Your task to perform on an android device: Open the Play Movies app and select the watchlist tab. Image 0: 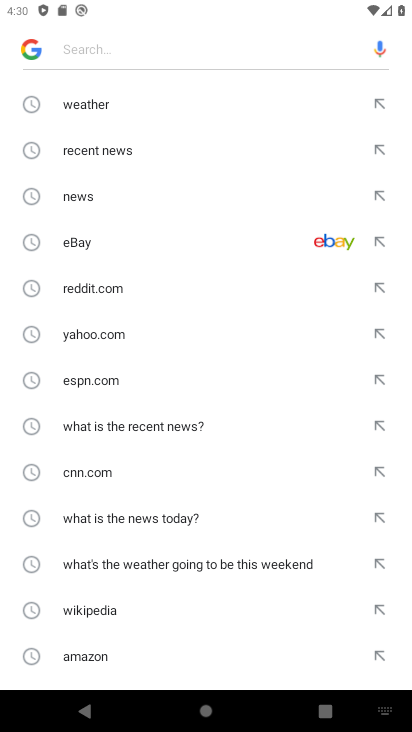
Step 0: press home button
Your task to perform on an android device: Open the Play Movies app and select the watchlist tab. Image 1: 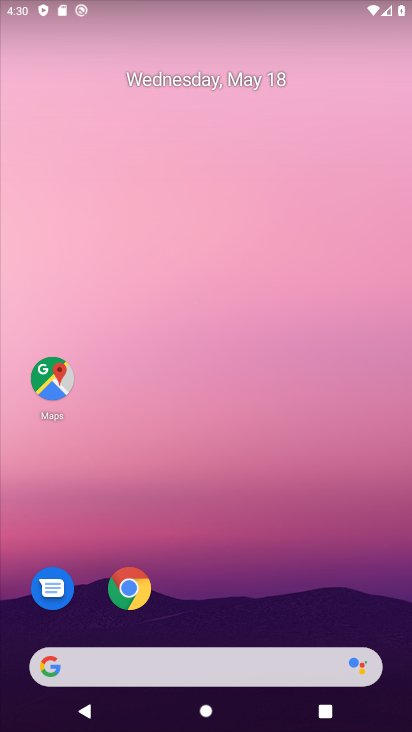
Step 1: drag from (278, 527) to (279, 134)
Your task to perform on an android device: Open the Play Movies app and select the watchlist tab. Image 2: 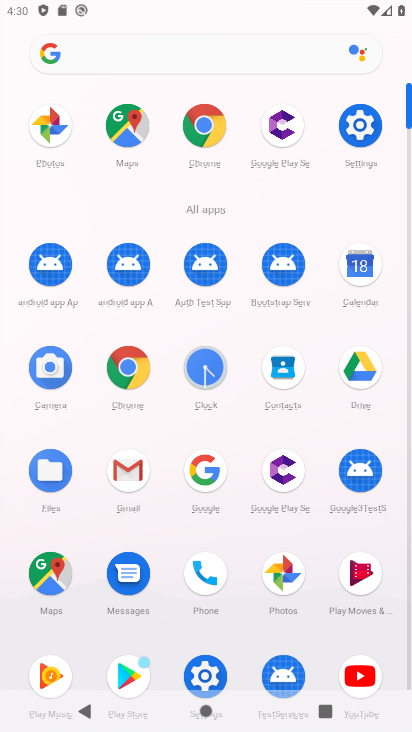
Step 2: drag from (267, 137) to (281, 58)
Your task to perform on an android device: Open the Play Movies app and select the watchlist tab. Image 3: 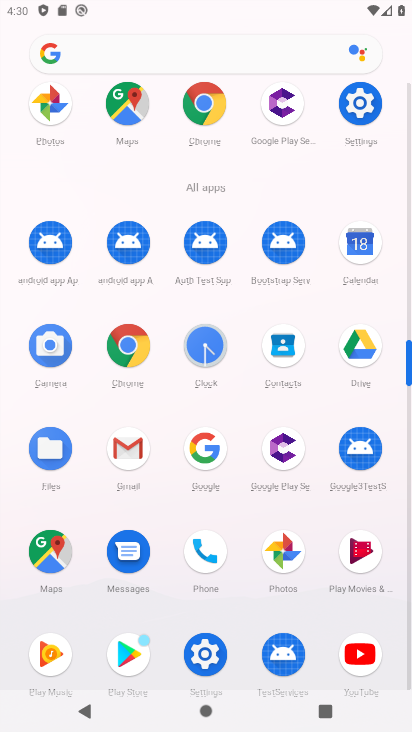
Step 3: click (361, 547)
Your task to perform on an android device: Open the Play Movies app and select the watchlist tab. Image 4: 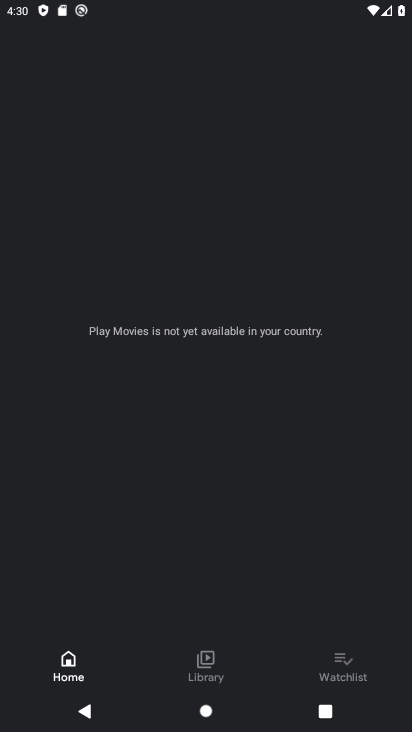
Step 4: click (339, 667)
Your task to perform on an android device: Open the Play Movies app and select the watchlist tab. Image 5: 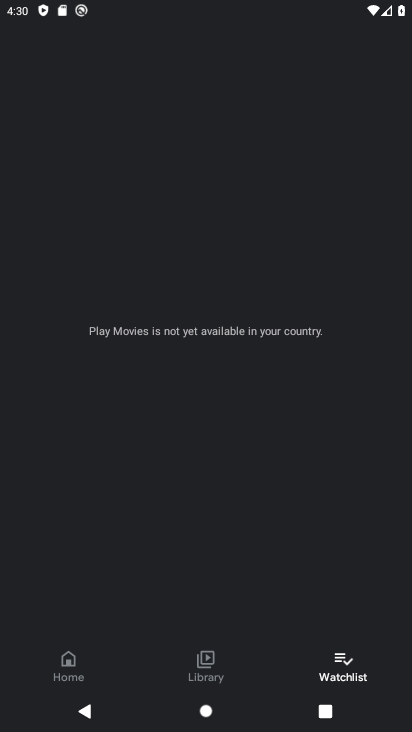
Step 5: task complete